Your task to perform on an android device: read, delete, or share a saved page in the chrome app Image 0: 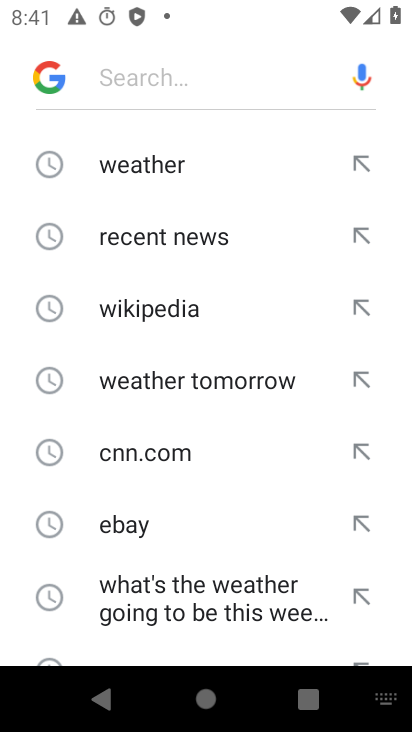
Step 0: press home button
Your task to perform on an android device: read, delete, or share a saved page in the chrome app Image 1: 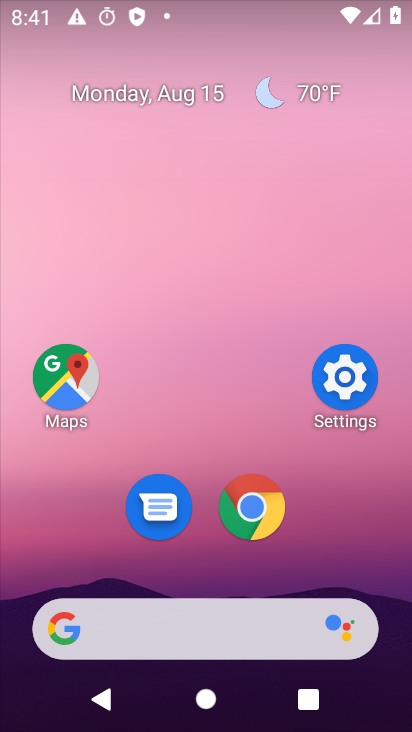
Step 1: click (257, 507)
Your task to perform on an android device: read, delete, or share a saved page in the chrome app Image 2: 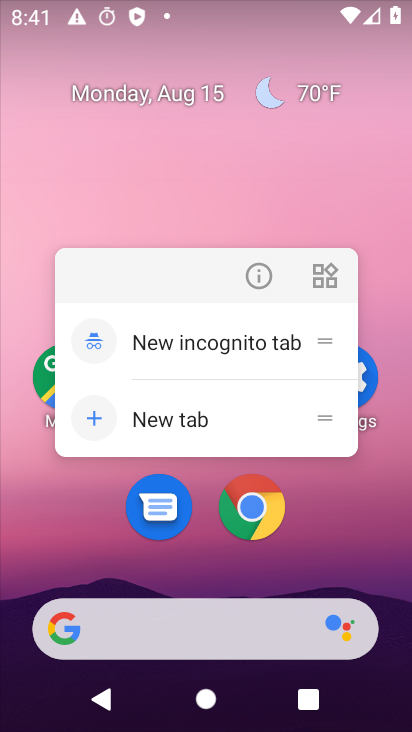
Step 2: click (257, 508)
Your task to perform on an android device: read, delete, or share a saved page in the chrome app Image 3: 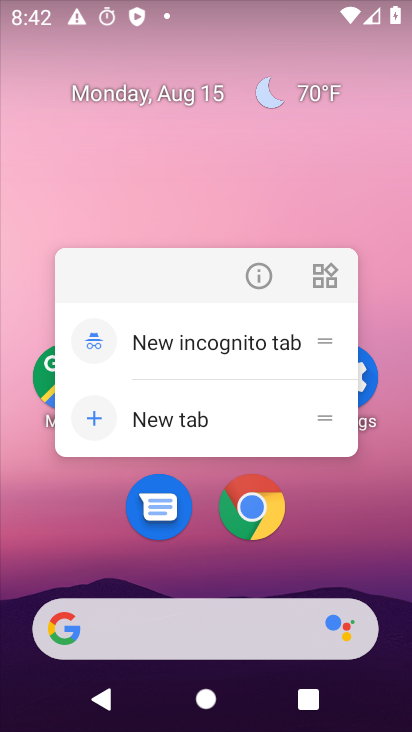
Step 3: click (257, 509)
Your task to perform on an android device: read, delete, or share a saved page in the chrome app Image 4: 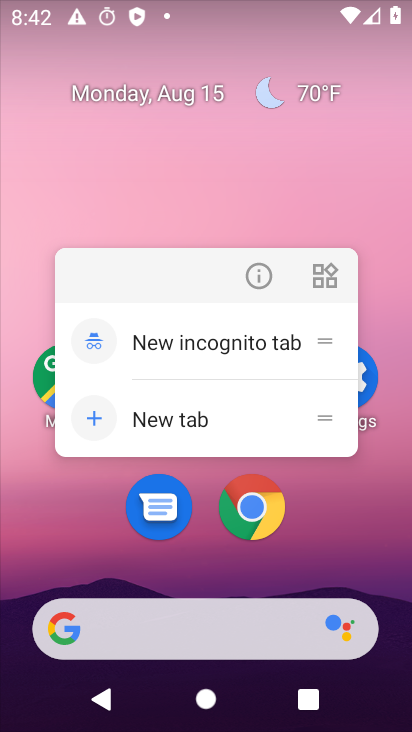
Step 4: click (257, 511)
Your task to perform on an android device: read, delete, or share a saved page in the chrome app Image 5: 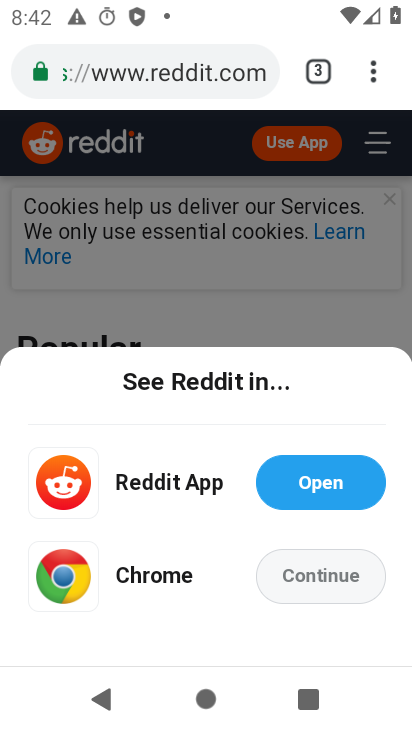
Step 5: drag from (378, 74) to (213, 469)
Your task to perform on an android device: read, delete, or share a saved page in the chrome app Image 6: 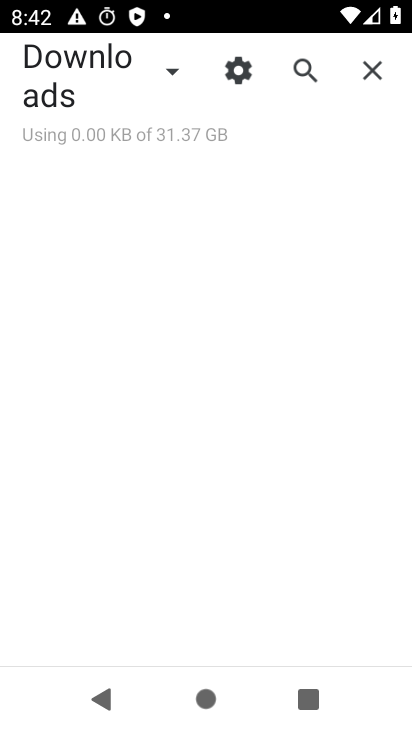
Step 6: click (165, 67)
Your task to perform on an android device: read, delete, or share a saved page in the chrome app Image 7: 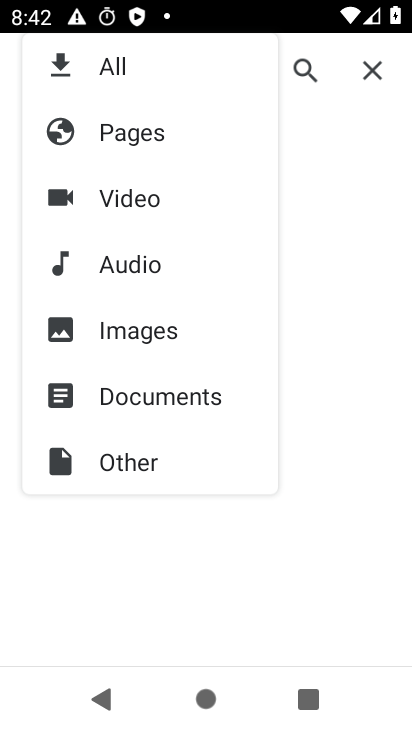
Step 7: click (108, 139)
Your task to perform on an android device: read, delete, or share a saved page in the chrome app Image 8: 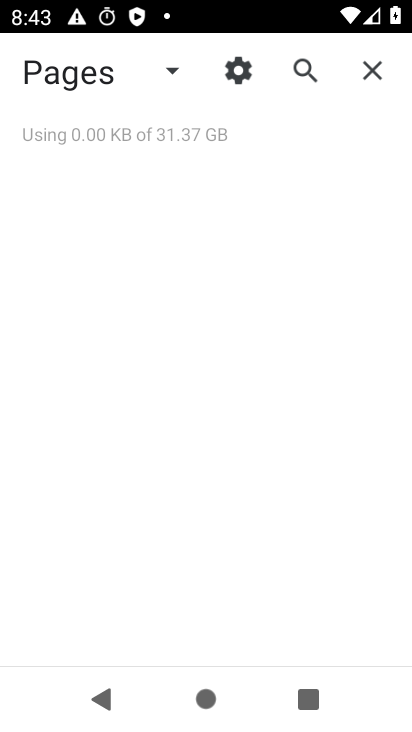
Step 8: task complete